Your task to perform on an android device: Open ESPN.com Image 0: 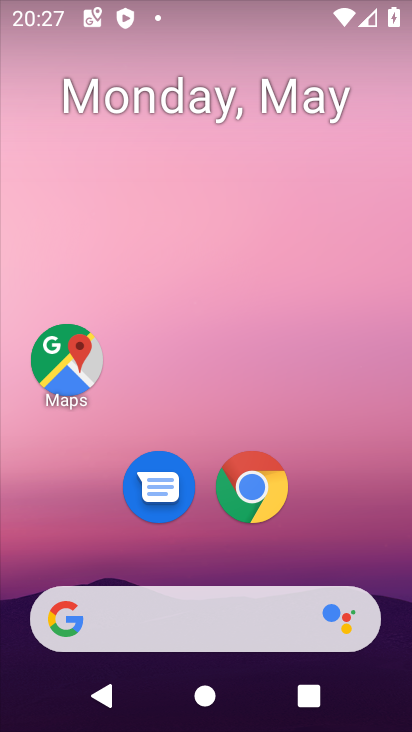
Step 0: drag from (397, 582) to (369, 247)
Your task to perform on an android device: Open ESPN.com Image 1: 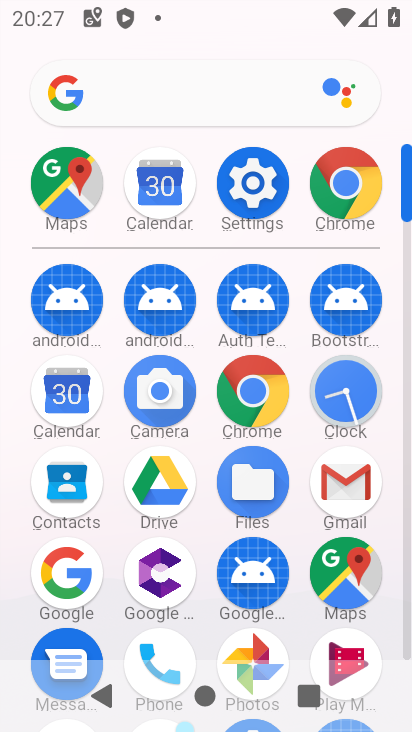
Step 1: click (269, 404)
Your task to perform on an android device: Open ESPN.com Image 2: 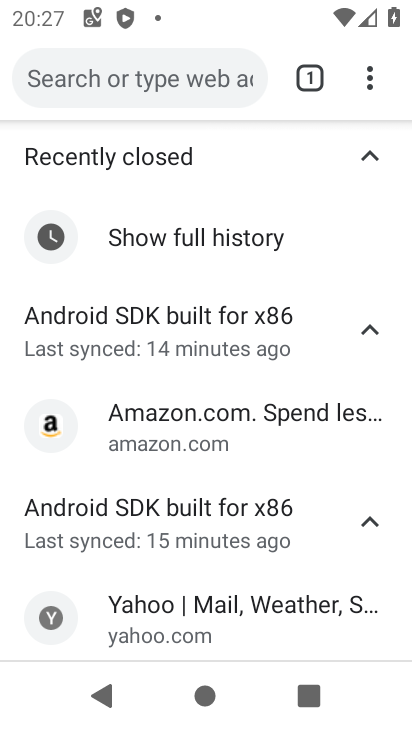
Step 2: click (214, 88)
Your task to perform on an android device: Open ESPN.com Image 3: 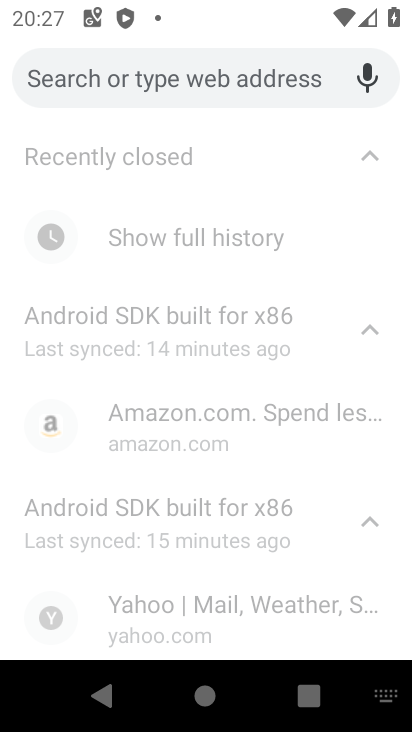
Step 3: type "espn.com"
Your task to perform on an android device: Open ESPN.com Image 4: 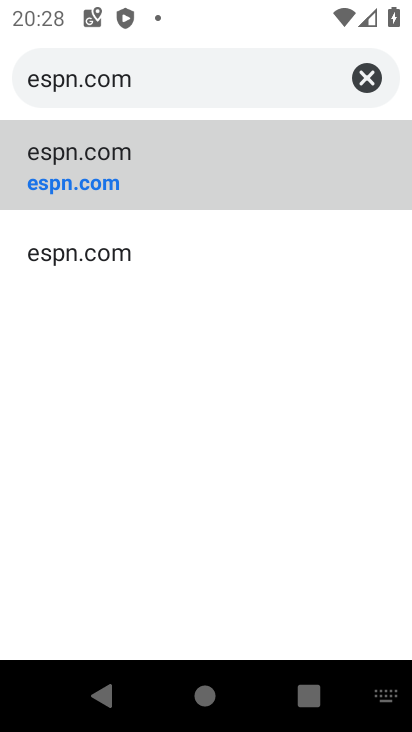
Step 4: click (123, 171)
Your task to perform on an android device: Open ESPN.com Image 5: 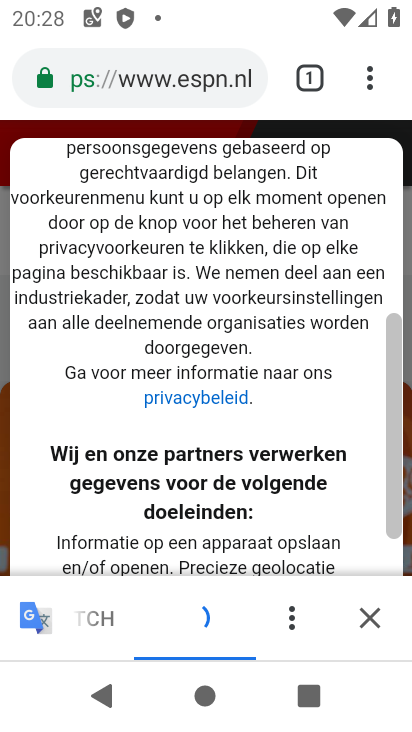
Step 5: task complete